Your task to perform on an android device: What's the weather going to be tomorrow? Image 0: 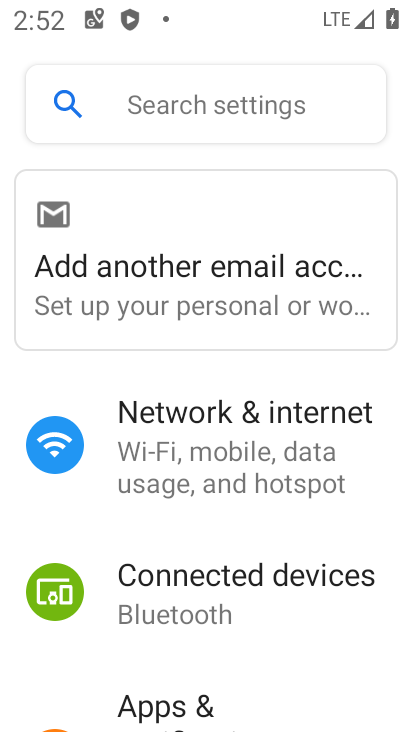
Step 0: press home button
Your task to perform on an android device: What's the weather going to be tomorrow? Image 1: 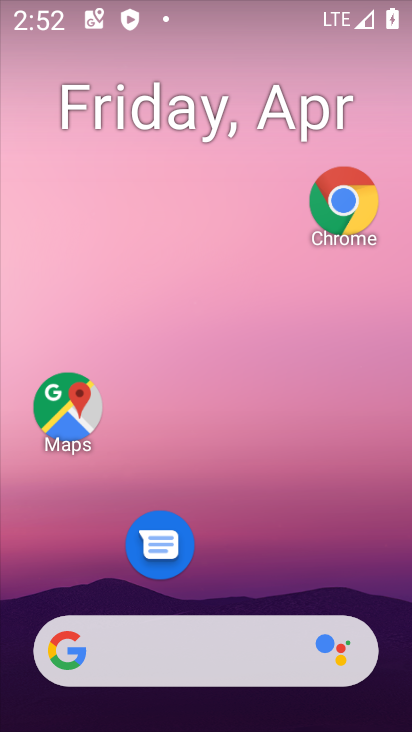
Step 1: click (169, 640)
Your task to perform on an android device: What's the weather going to be tomorrow? Image 2: 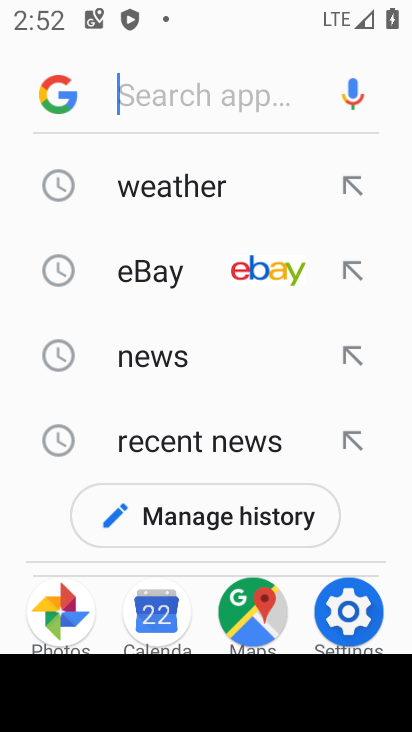
Step 2: click (197, 200)
Your task to perform on an android device: What's the weather going to be tomorrow? Image 3: 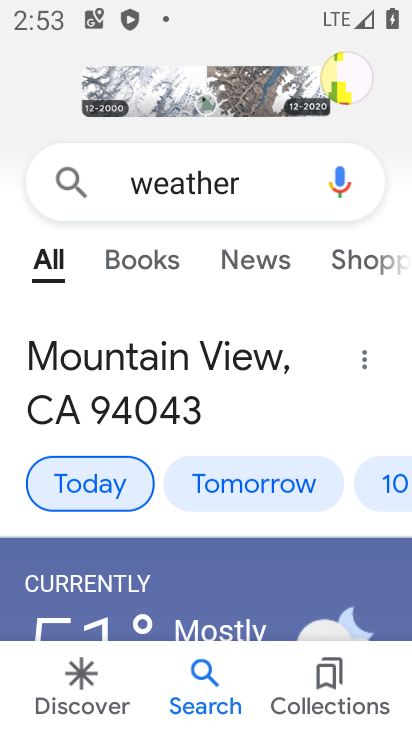
Step 3: click (222, 493)
Your task to perform on an android device: What's the weather going to be tomorrow? Image 4: 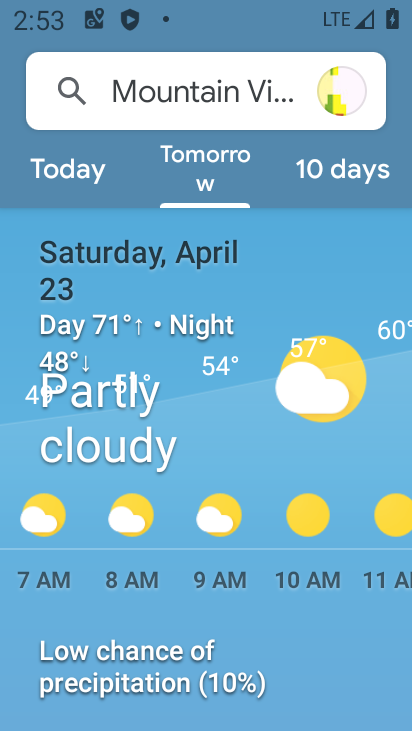
Step 4: task complete